Your task to perform on an android device: Open Chrome and go to the settings page Image 0: 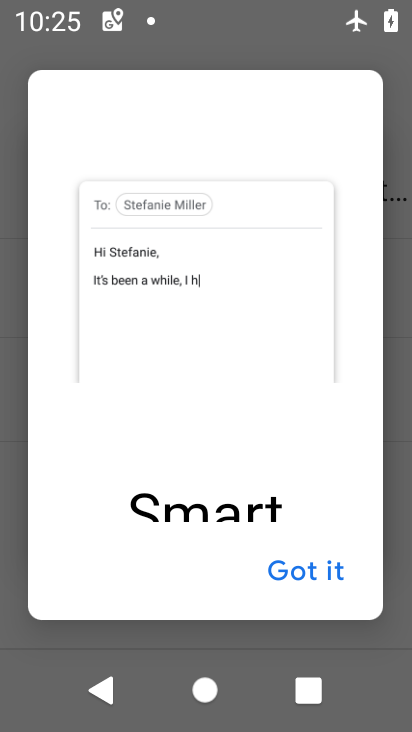
Step 0: press home button
Your task to perform on an android device: Open Chrome and go to the settings page Image 1: 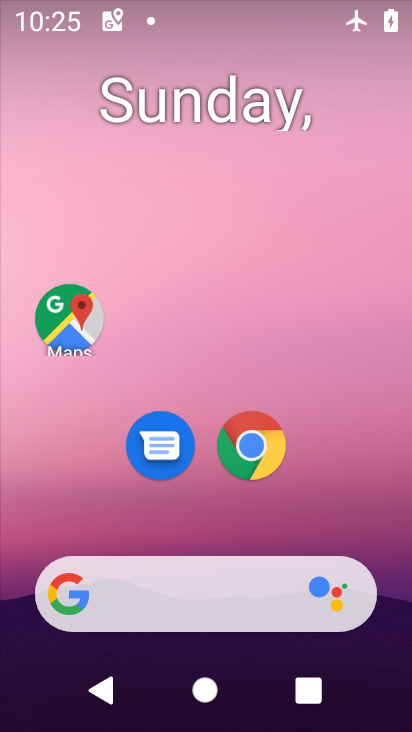
Step 1: click (240, 436)
Your task to perform on an android device: Open Chrome and go to the settings page Image 2: 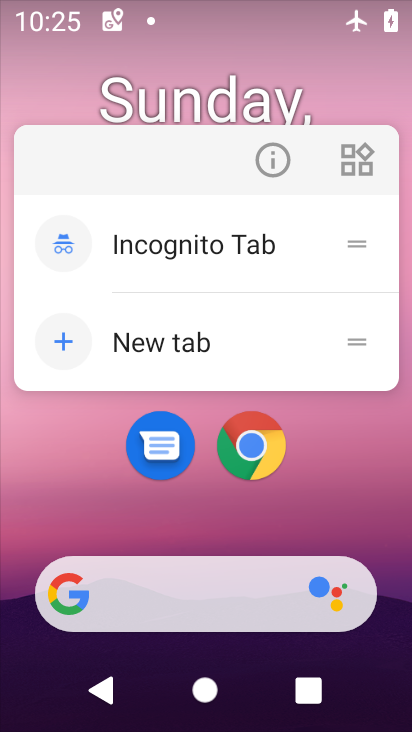
Step 2: click (252, 446)
Your task to perform on an android device: Open Chrome and go to the settings page Image 3: 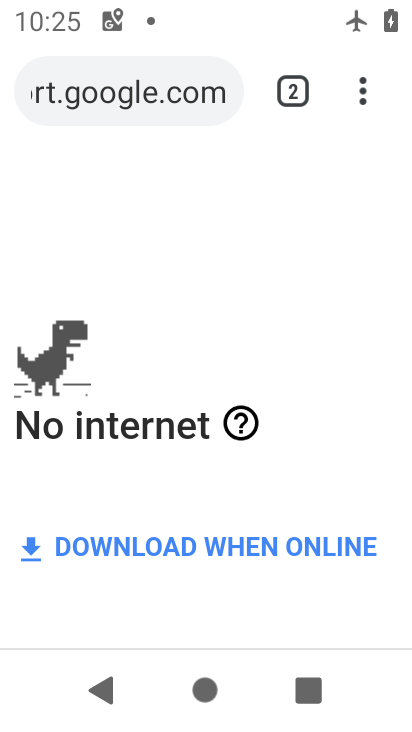
Step 3: click (369, 90)
Your task to perform on an android device: Open Chrome and go to the settings page Image 4: 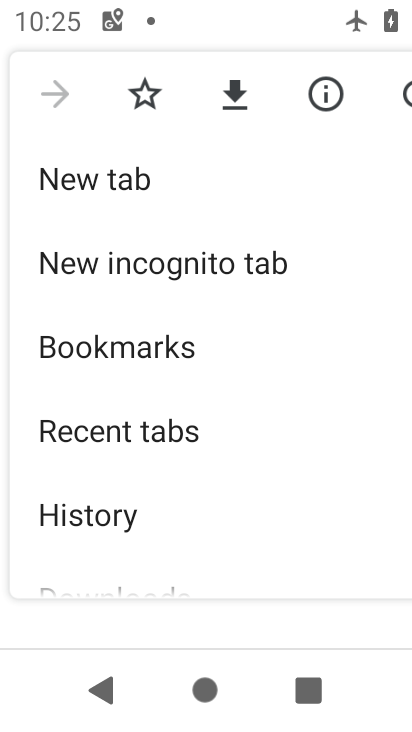
Step 4: drag from (132, 486) to (106, 100)
Your task to perform on an android device: Open Chrome and go to the settings page Image 5: 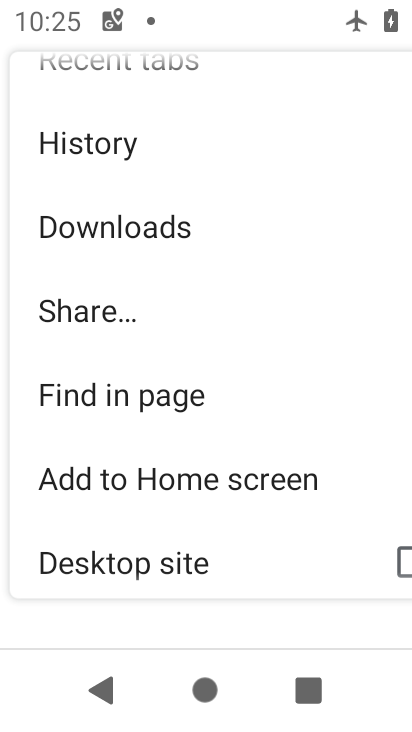
Step 5: drag from (94, 468) to (49, 48)
Your task to perform on an android device: Open Chrome and go to the settings page Image 6: 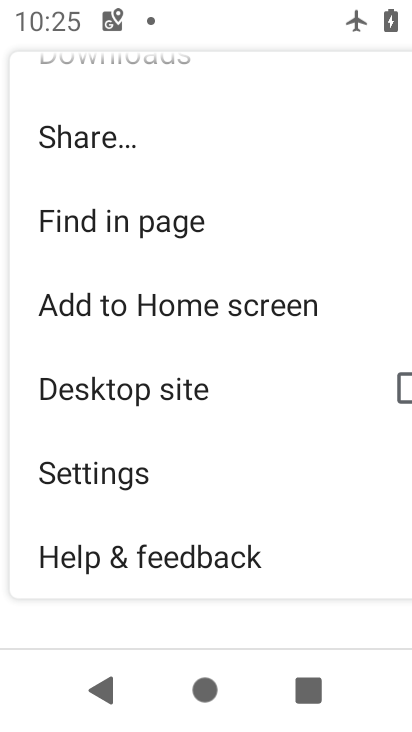
Step 6: click (49, 481)
Your task to perform on an android device: Open Chrome and go to the settings page Image 7: 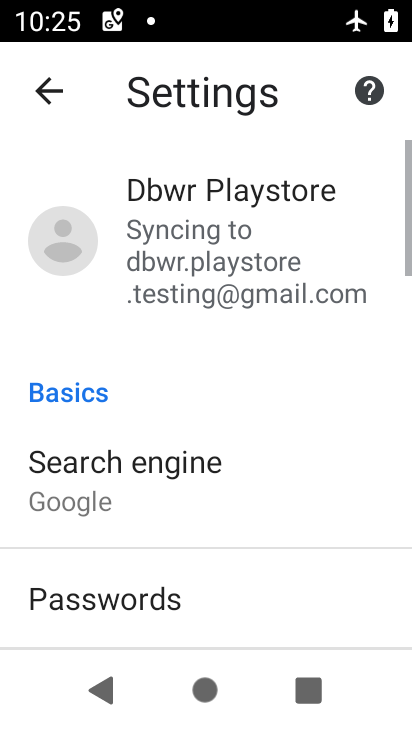
Step 7: task complete